Your task to perform on an android device: add a label to a message in the gmail app Image 0: 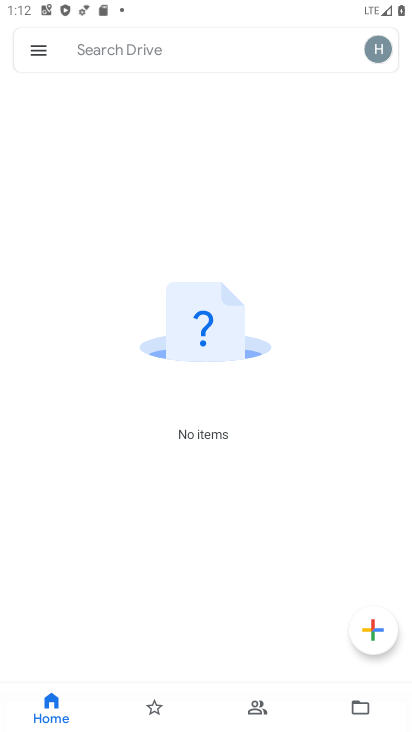
Step 0: press home button
Your task to perform on an android device: add a label to a message in the gmail app Image 1: 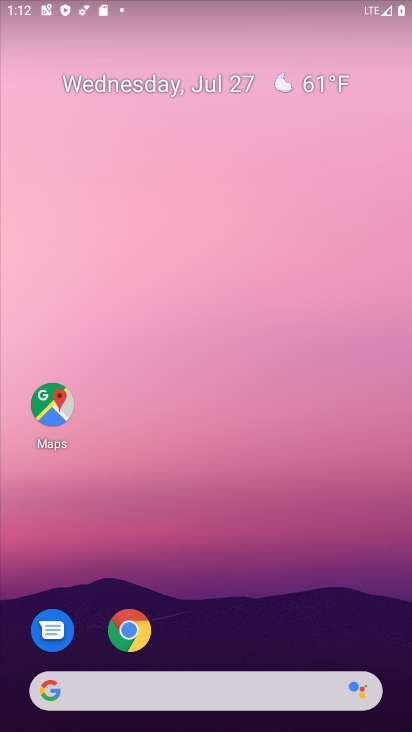
Step 1: drag from (168, 664) to (197, 187)
Your task to perform on an android device: add a label to a message in the gmail app Image 2: 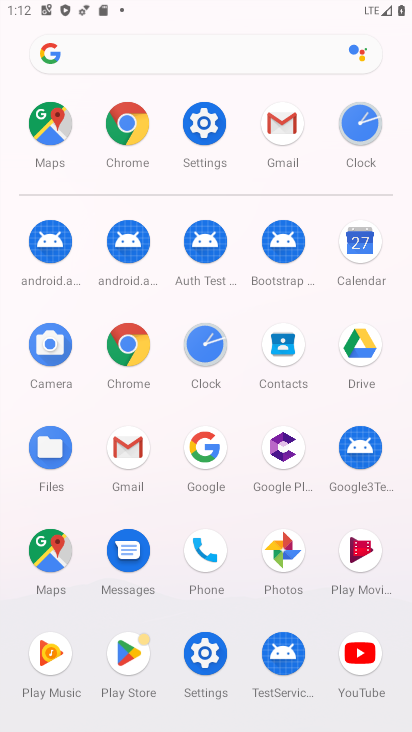
Step 2: click (286, 138)
Your task to perform on an android device: add a label to a message in the gmail app Image 3: 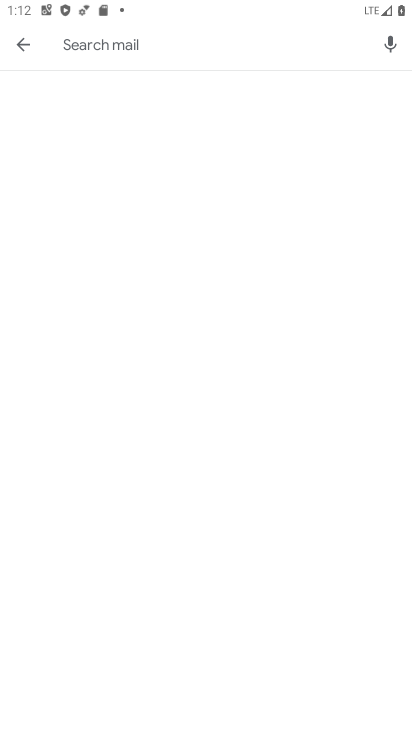
Step 3: click (91, 46)
Your task to perform on an android device: add a label to a message in the gmail app Image 4: 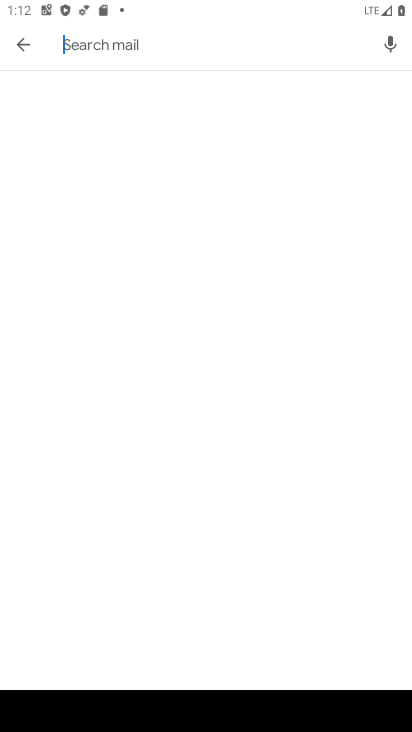
Step 4: click (28, 41)
Your task to perform on an android device: add a label to a message in the gmail app Image 5: 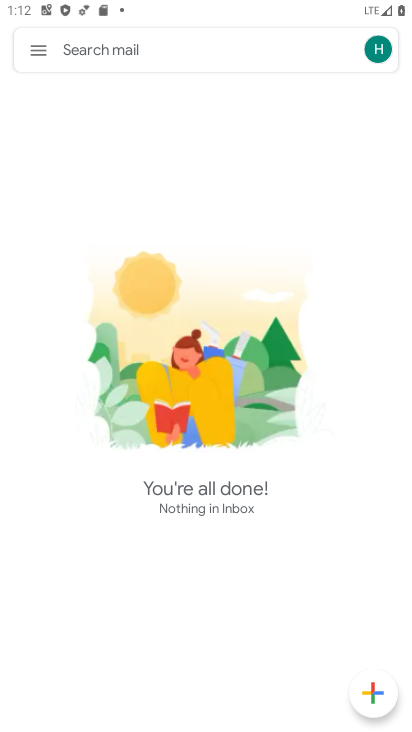
Step 5: task complete